Your task to perform on an android device: Open Amazon Image 0: 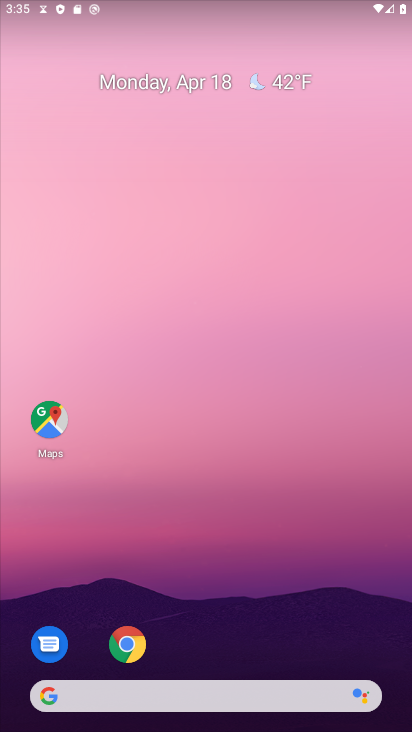
Step 0: drag from (255, 638) to (230, 39)
Your task to perform on an android device: Open Amazon Image 1: 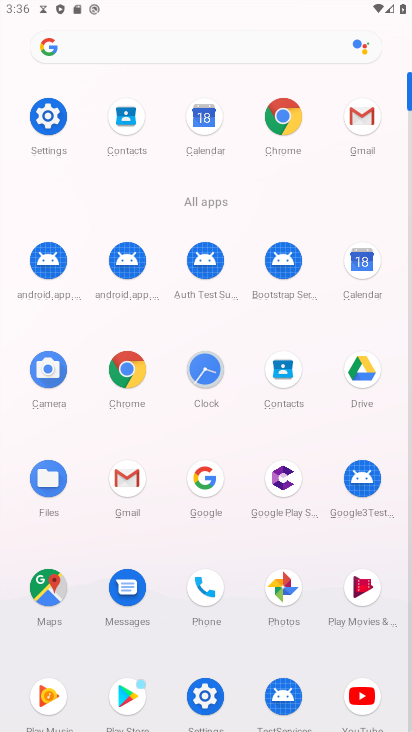
Step 1: click (290, 116)
Your task to perform on an android device: Open Amazon Image 2: 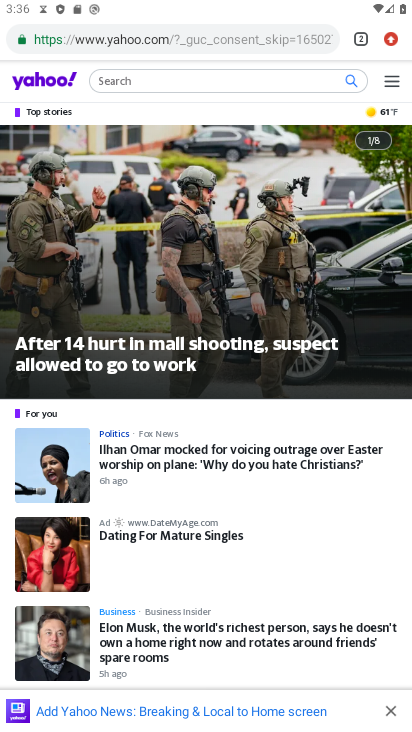
Step 2: click (358, 35)
Your task to perform on an android device: Open Amazon Image 3: 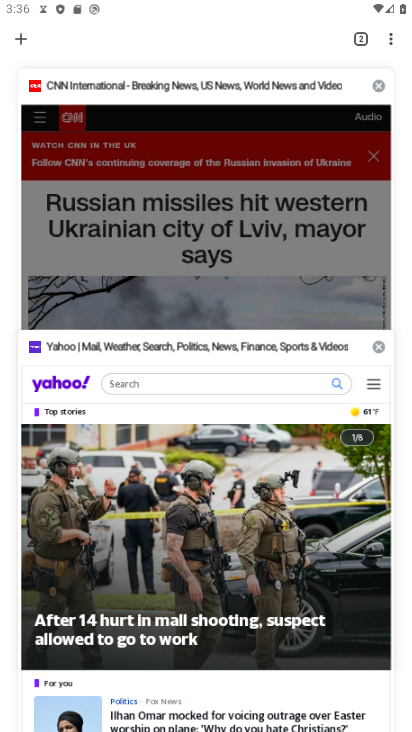
Step 3: click (15, 37)
Your task to perform on an android device: Open Amazon Image 4: 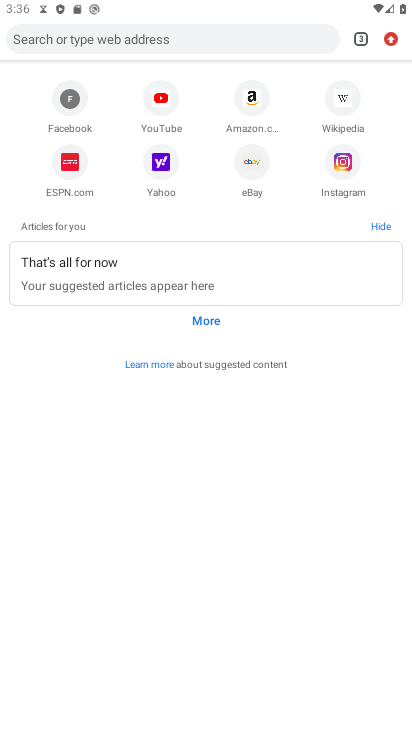
Step 4: click (248, 107)
Your task to perform on an android device: Open Amazon Image 5: 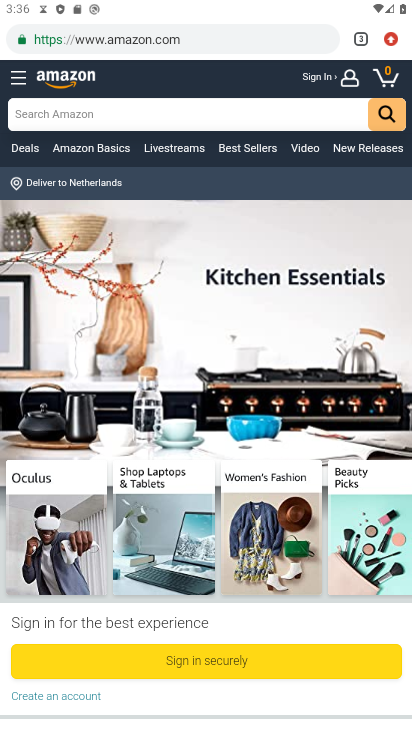
Step 5: task complete